Your task to perform on an android device: toggle priority inbox in the gmail app Image 0: 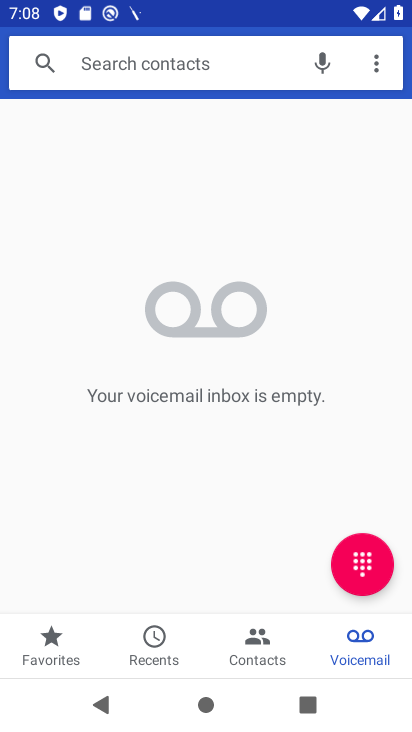
Step 0: press home button
Your task to perform on an android device: toggle priority inbox in the gmail app Image 1: 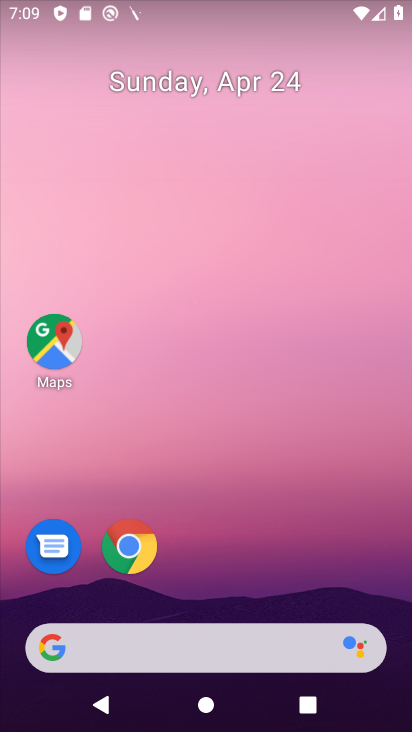
Step 1: drag from (257, 560) to (237, 3)
Your task to perform on an android device: toggle priority inbox in the gmail app Image 2: 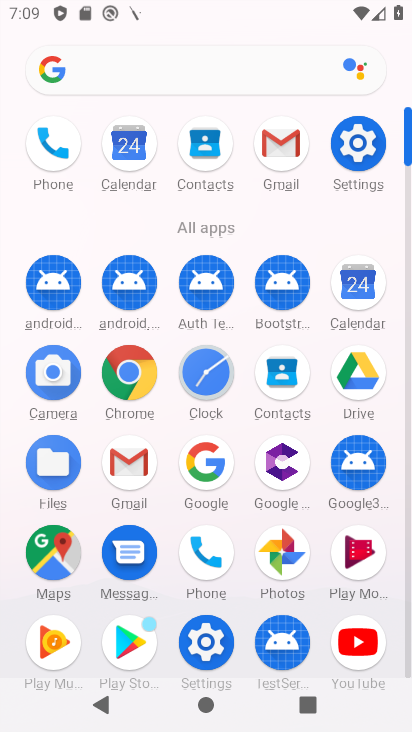
Step 2: click (272, 140)
Your task to perform on an android device: toggle priority inbox in the gmail app Image 3: 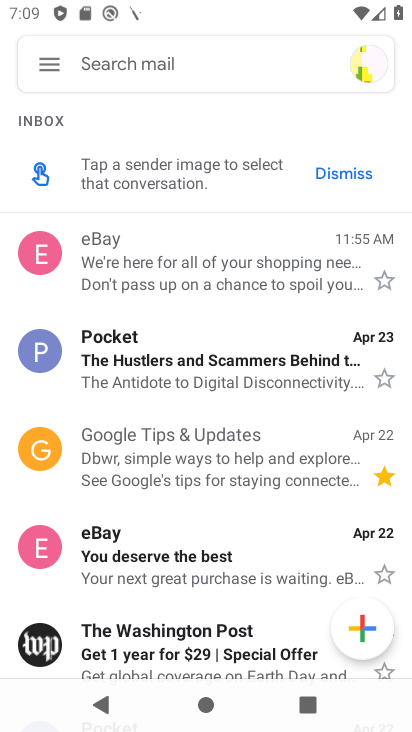
Step 3: click (43, 64)
Your task to perform on an android device: toggle priority inbox in the gmail app Image 4: 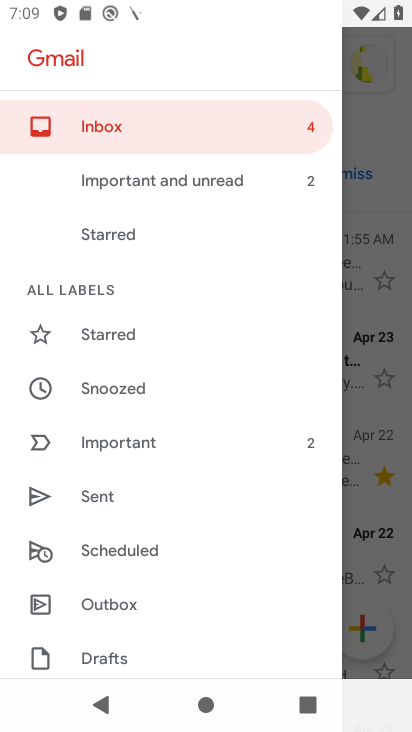
Step 4: drag from (187, 631) to (138, 245)
Your task to perform on an android device: toggle priority inbox in the gmail app Image 5: 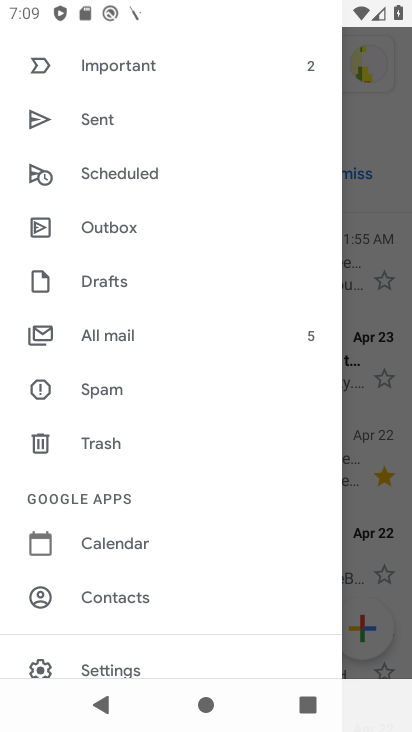
Step 5: drag from (168, 578) to (99, 98)
Your task to perform on an android device: toggle priority inbox in the gmail app Image 6: 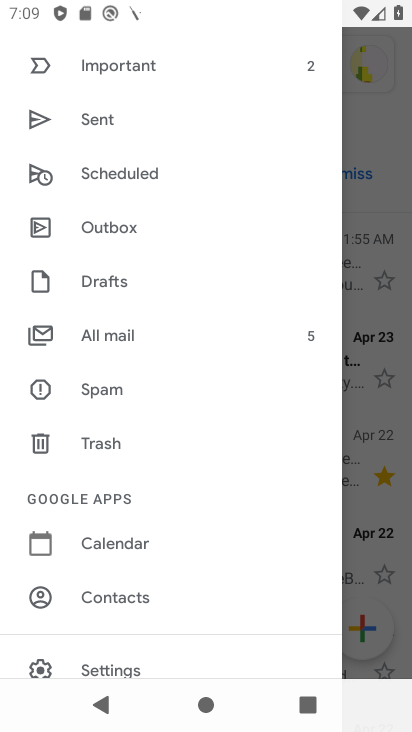
Step 6: click (120, 663)
Your task to perform on an android device: toggle priority inbox in the gmail app Image 7: 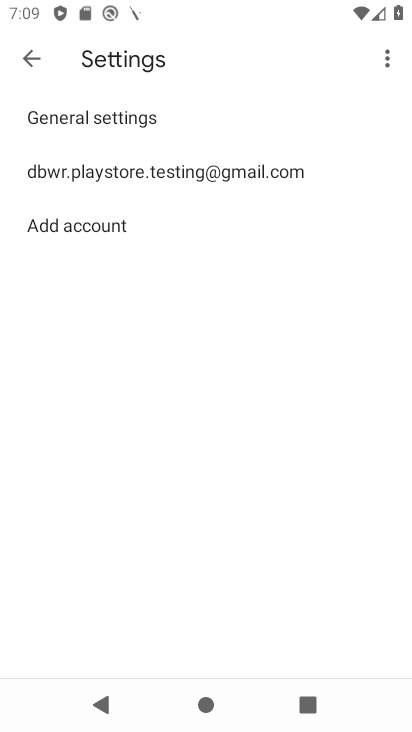
Step 7: click (99, 174)
Your task to perform on an android device: toggle priority inbox in the gmail app Image 8: 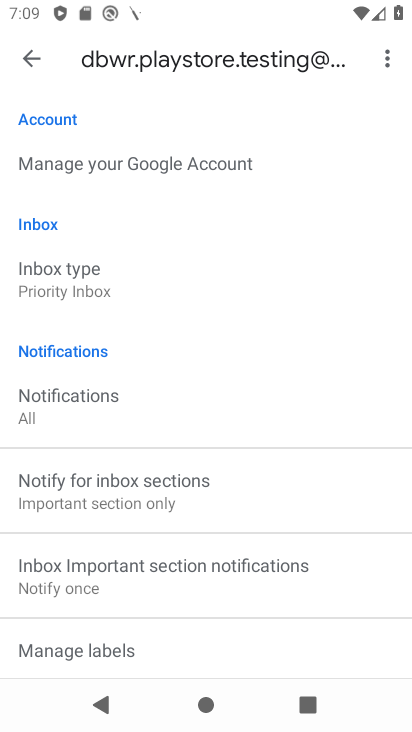
Step 8: click (59, 271)
Your task to perform on an android device: toggle priority inbox in the gmail app Image 9: 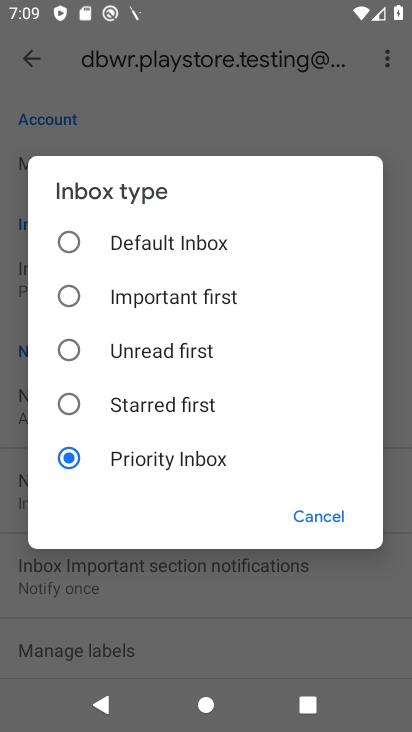
Step 9: click (59, 241)
Your task to perform on an android device: toggle priority inbox in the gmail app Image 10: 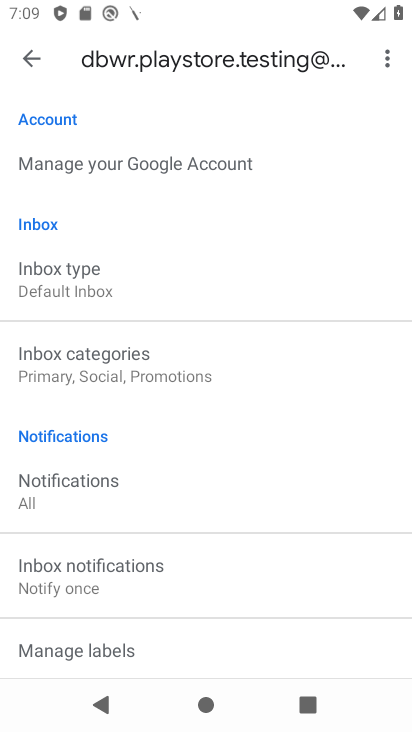
Step 10: task complete